Your task to perform on an android device: turn off improve location accuracy Image 0: 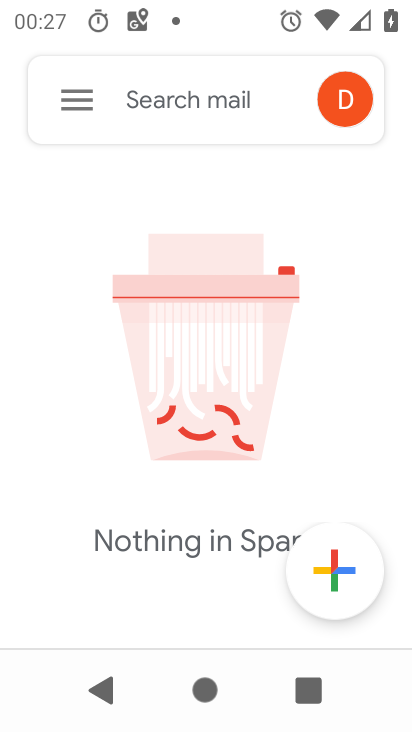
Step 0: press home button
Your task to perform on an android device: turn off improve location accuracy Image 1: 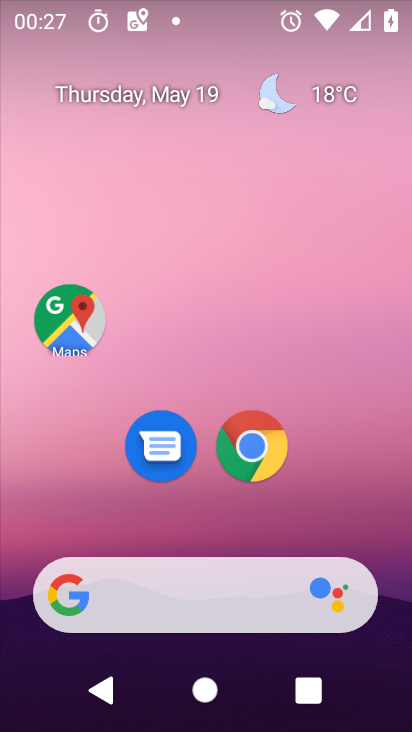
Step 1: drag from (152, 580) to (287, 139)
Your task to perform on an android device: turn off improve location accuracy Image 2: 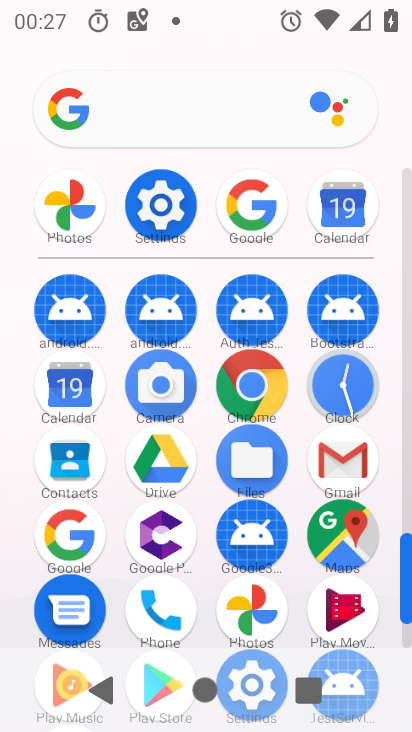
Step 2: click (160, 198)
Your task to perform on an android device: turn off improve location accuracy Image 3: 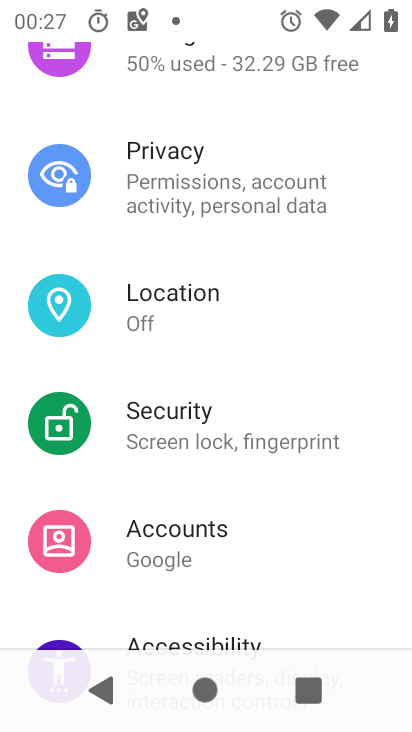
Step 3: click (164, 308)
Your task to perform on an android device: turn off improve location accuracy Image 4: 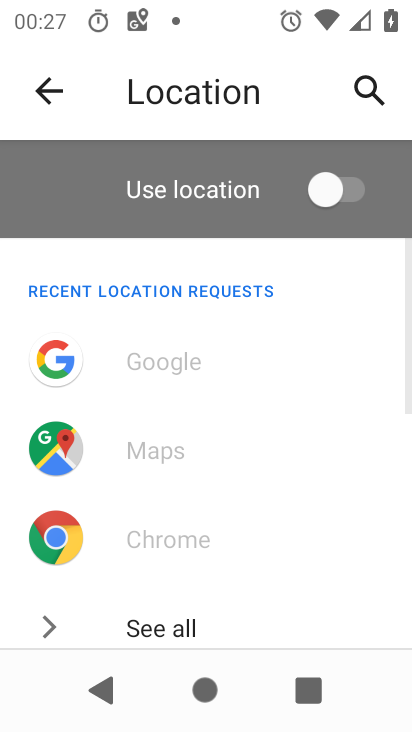
Step 4: drag from (239, 593) to (326, 85)
Your task to perform on an android device: turn off improve location accuracy Image 5: 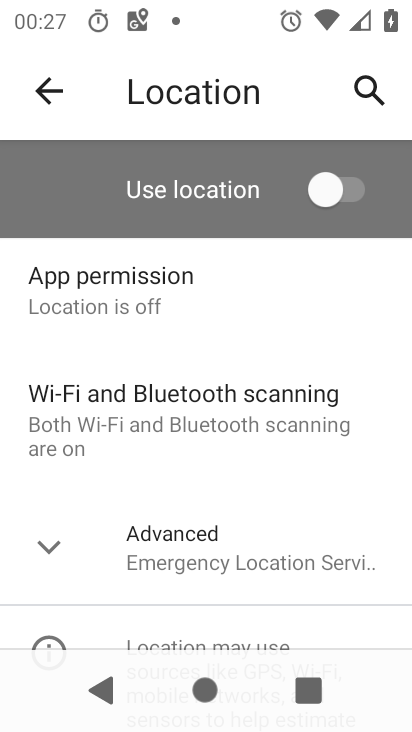
Step 5: click (188, 540)
Your task to perform on an android device: turn off improve location accuracy Image 6: 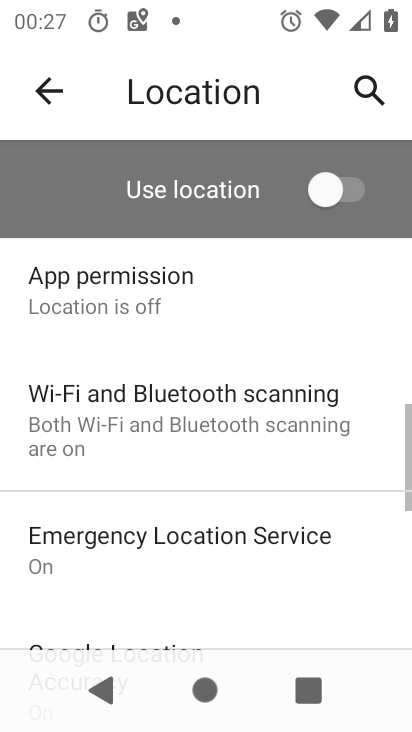
Step 6: drag from (188, 588) to (271, 189)
Your task to perform on an android device: turn off improve location accuracy Image 7: 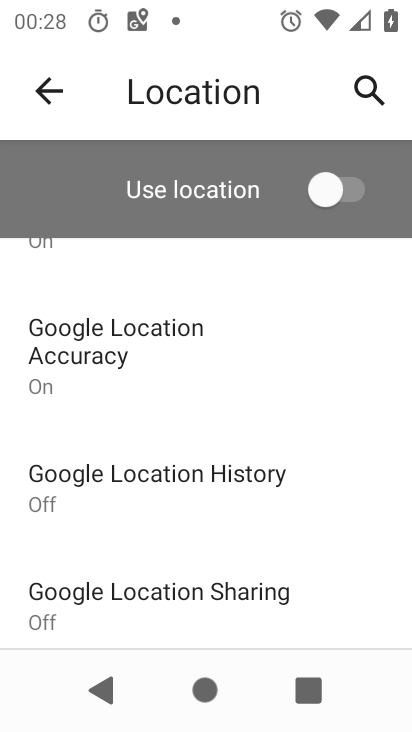
Step 7: click (121, 356)
Your task to perform on an android device: turn off improve location accuracy Image 8: 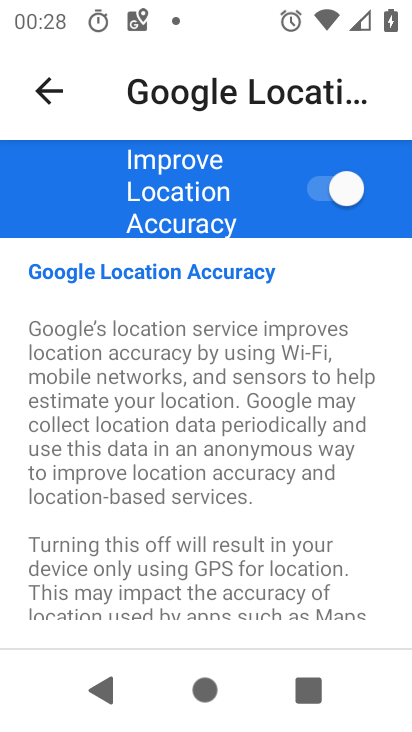
Step 8: click (318, 196)
Your task to perform on an android device: turn off improve location accuracy Image 9: 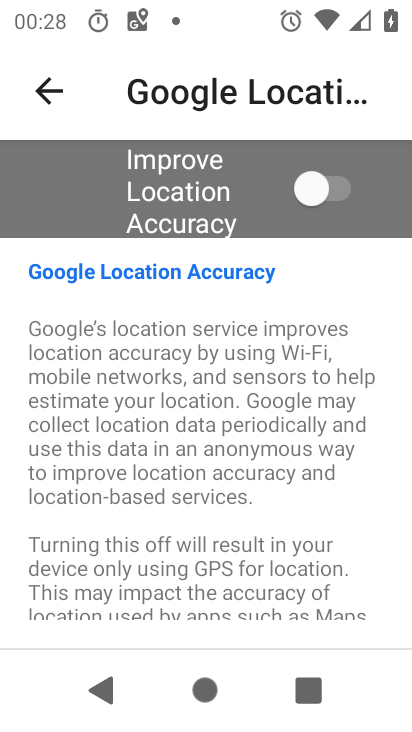
Step 9: task complete